Your task to perform on an android device: Open Google Chrome Image 0: 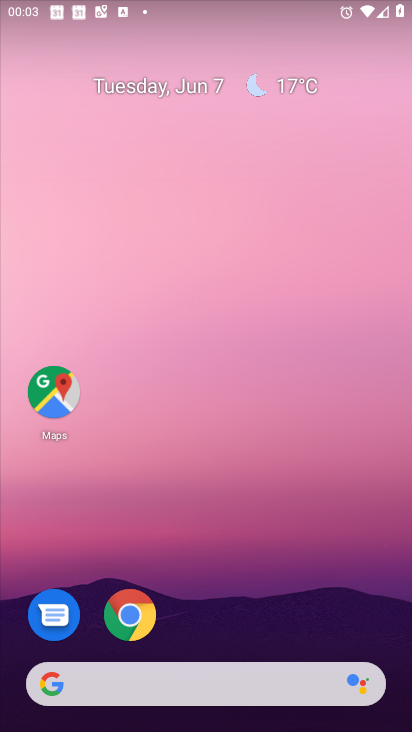
Step 0: click (140, 625)
Your task to perform on an android device: Open Google Chrome Image 1: 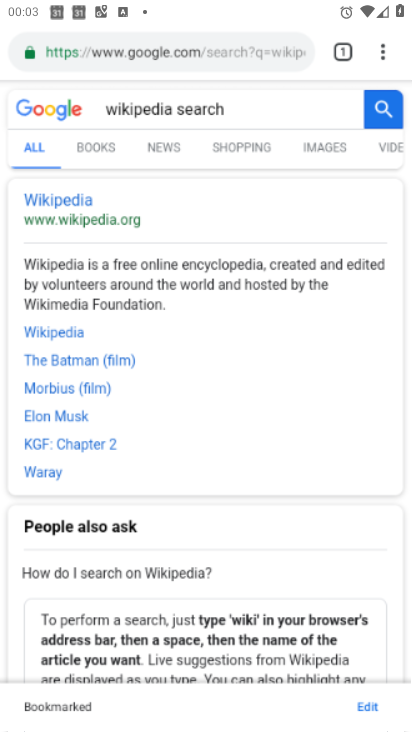
Step 1: task complete